Your task to perform on an android device: manage bookmarks in the chrome app Image 0: 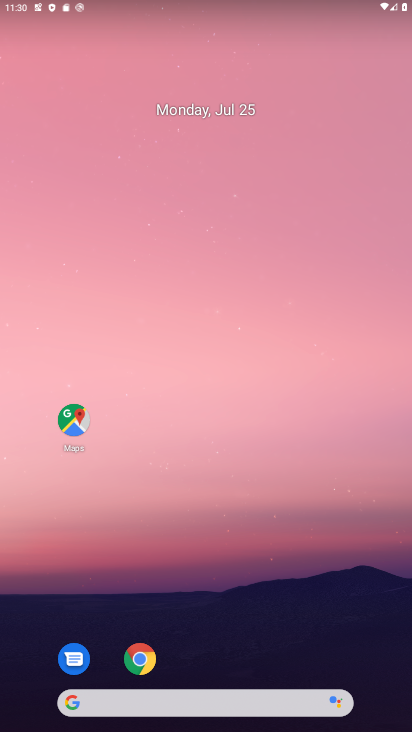
Step 0: click (151, 661)
Your task to perform on an android device: manage bookmarks in the chrome app Image 1: 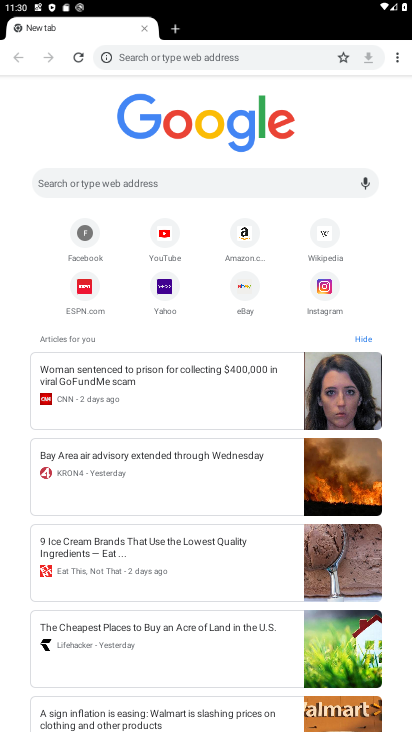
Step 1: click (395, 55)
Your task to perform on an android device: manage bookmarks in the chrome app Image 2: 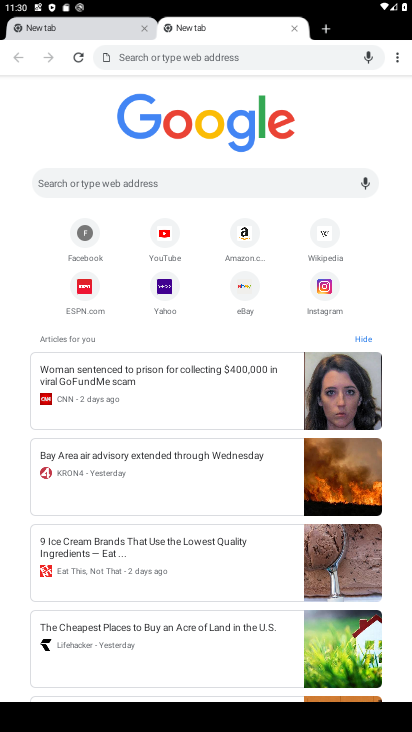
Step 2: click (396, 54)
Your task to perform on an android device: manage bookmarks in the chrome app Image 3: 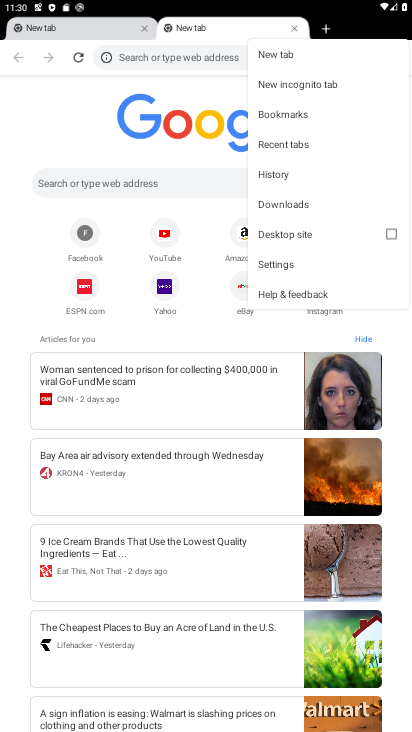
Step 3: click (279, 116)
Your task to perform on an android device: manage bookmarks in the chrome app Image 4: 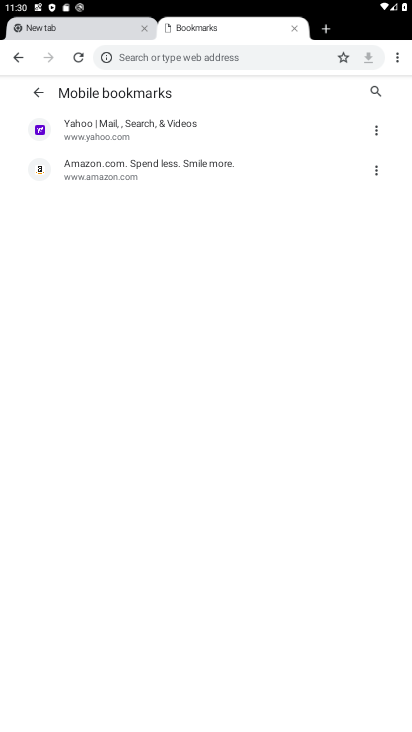
Step 4: task complete